Your task to perform on an android device: Check the weather Image 0: 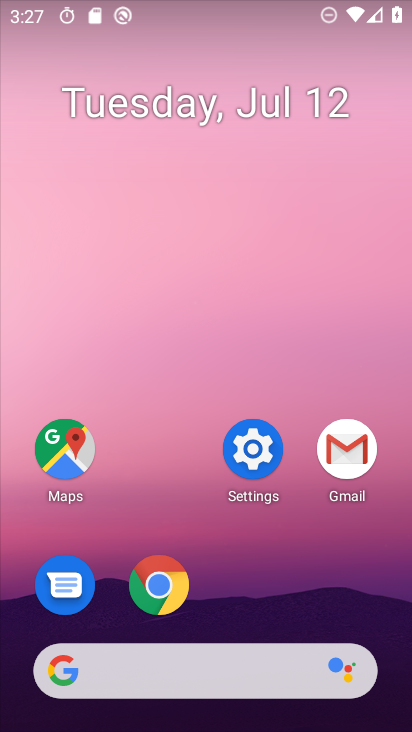
Step 0: drag from (4, 188) to (411, 238)
Your task to perform on an android device: Check the weather Image 1: 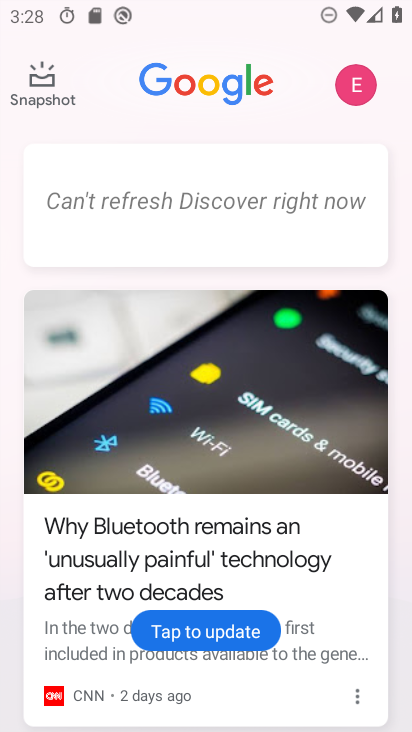
Step 1: task complete